Your task to perform on an android device: What's the weather? Image 0: 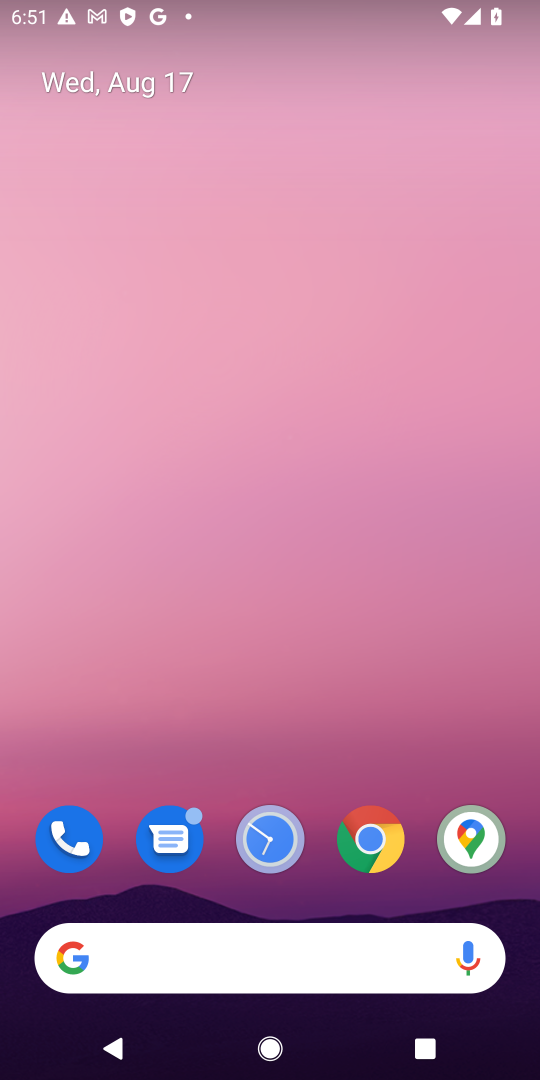
Step 0: click (246, 953)
Your task to perform on an android device: What's the weather? Image 1: 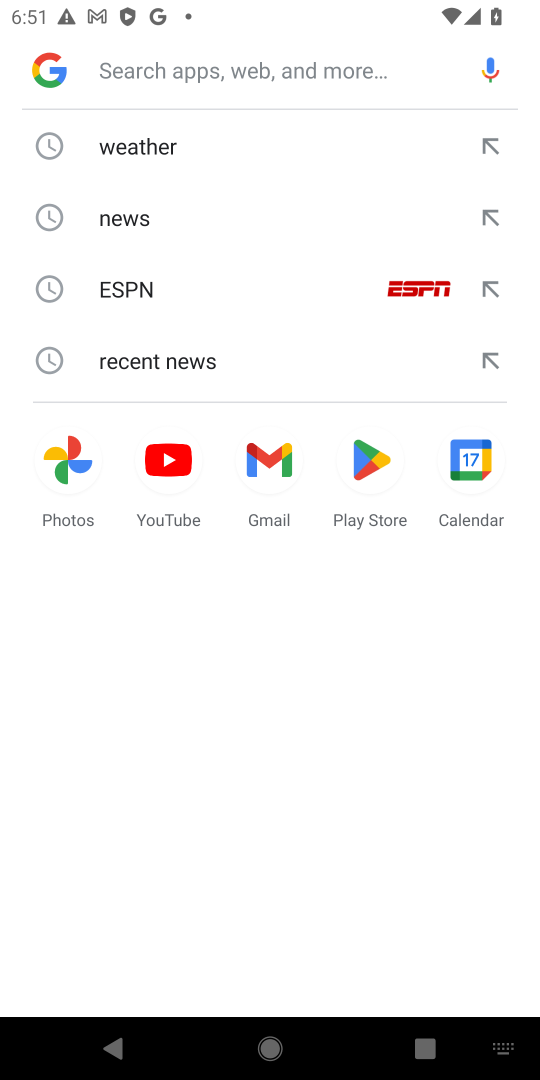
Step 1: click (86, 146)
Your task to perform on an android device: What's the weather? Image 2: 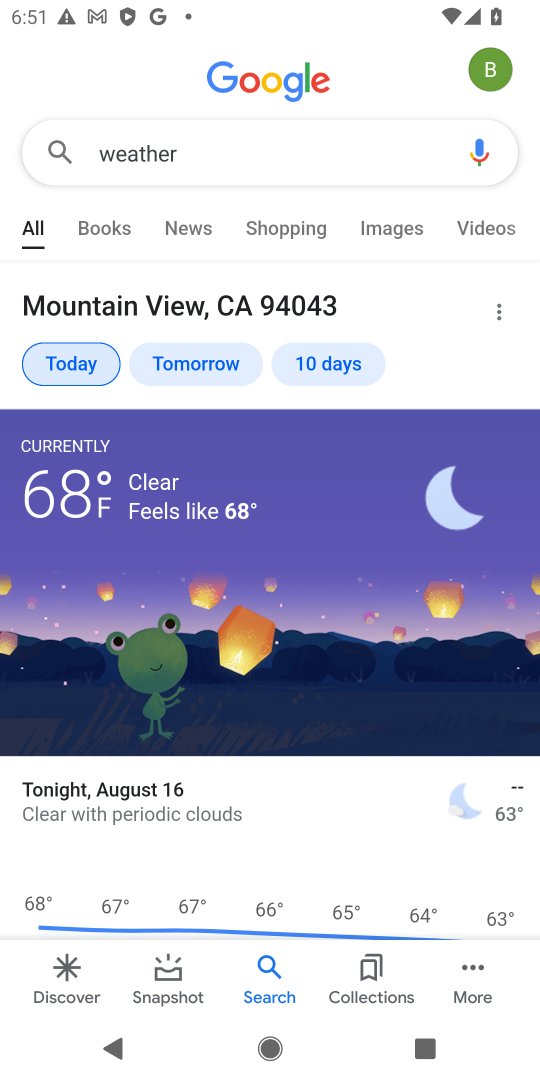
Step 2: task complete